Your task to perform on an android device: Go to location settings Image 0: 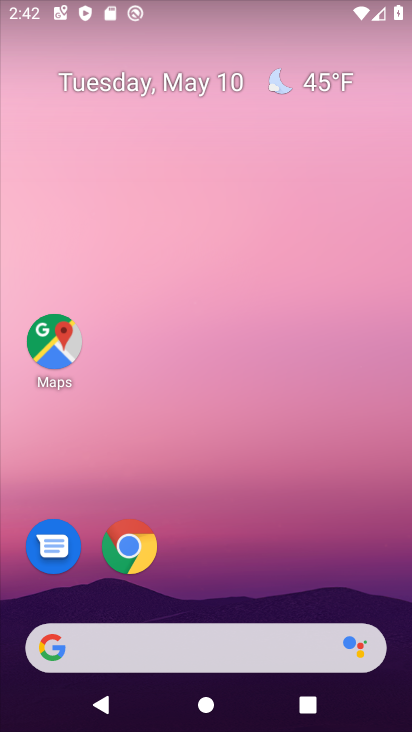
Step 0: drag from (265, 540) to (213, 88)
Your task to perform on an android device: Go to location settings Image 1: 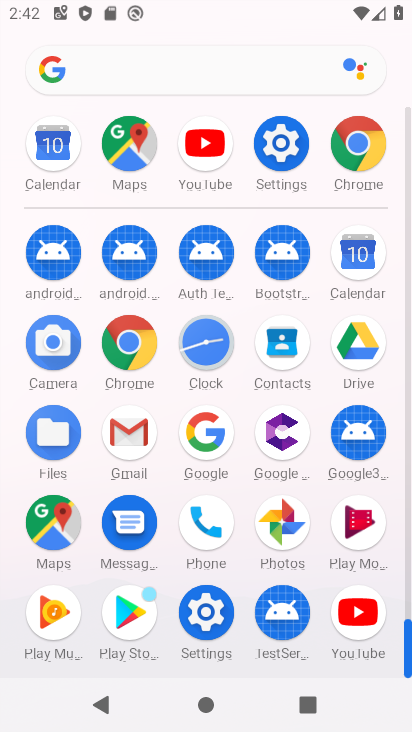
Step 1: drag from (9, 580) to (18, 187)
Your task to perform on an android device: Go to location settings Image 2: 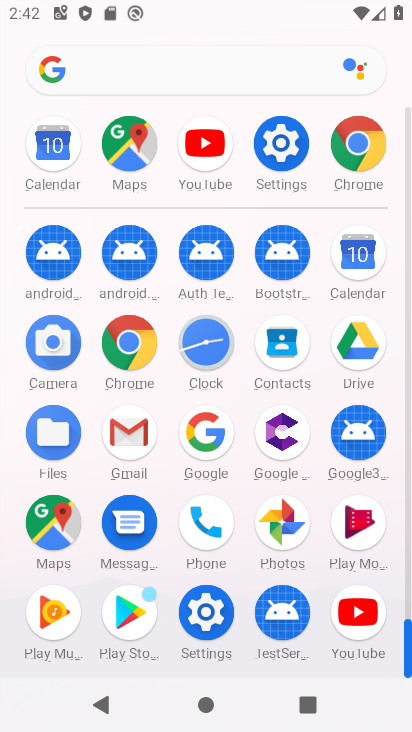
Step 2: click (204, 606)
Your task to perform on an android device: Go to location settings Image 3: 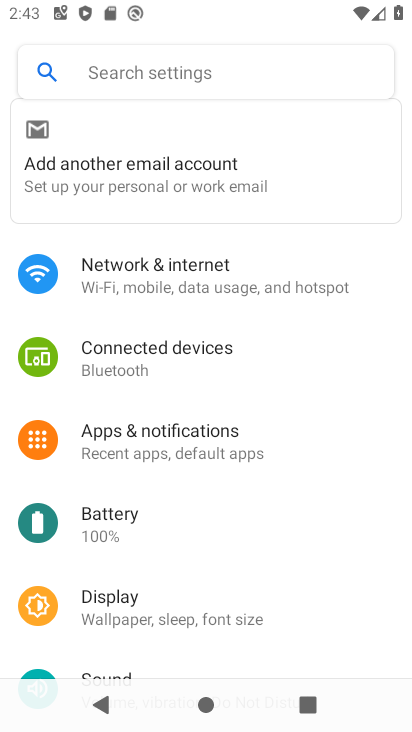
Step 3: drag from (267, 495) to (302, 213)
Your task to perform on an android device: Go to location settings Image 4: 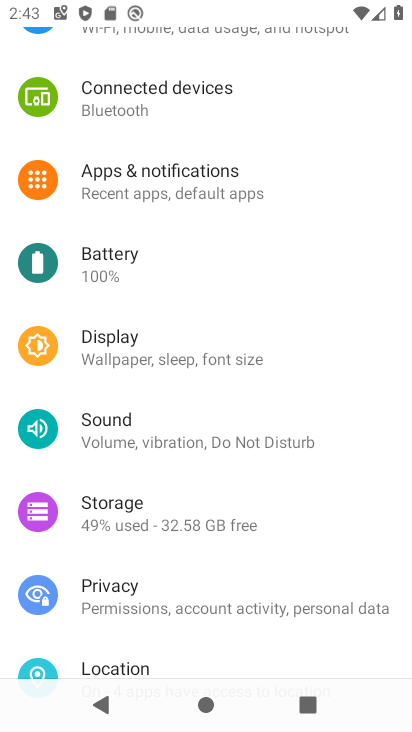
Step 4: drag from (295, 232) to (302, 404)
Your task to perform on an android device: Go to location settings Image 5: 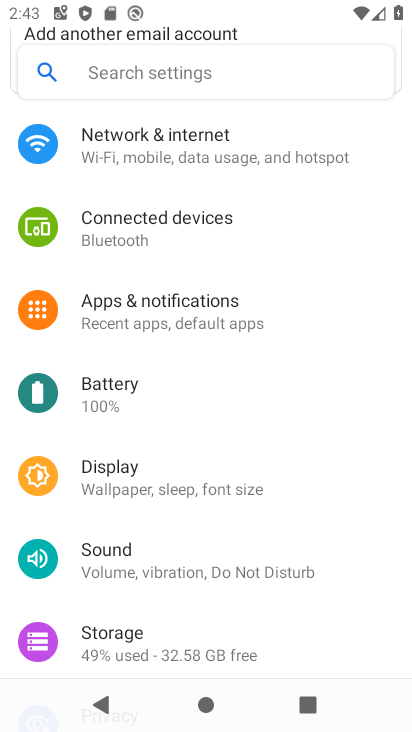
Step 5: drag from (282, 563) to (280, 186)
Your task to perform on an android device: Go to location settings Image 6: 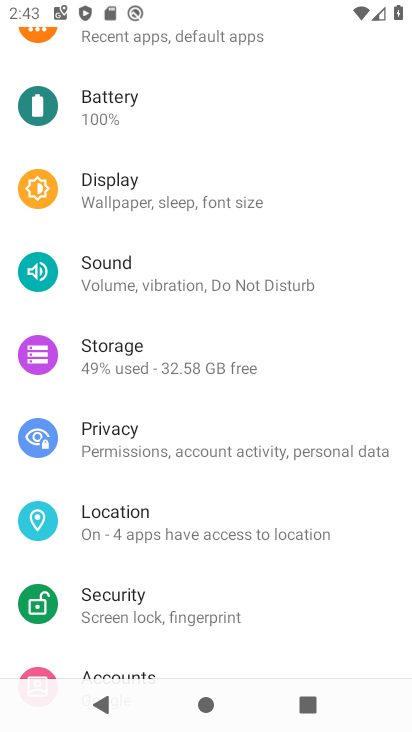
Step 6: click (133, 521)
Your task to perform on an android device: Go to location settings Image 7: 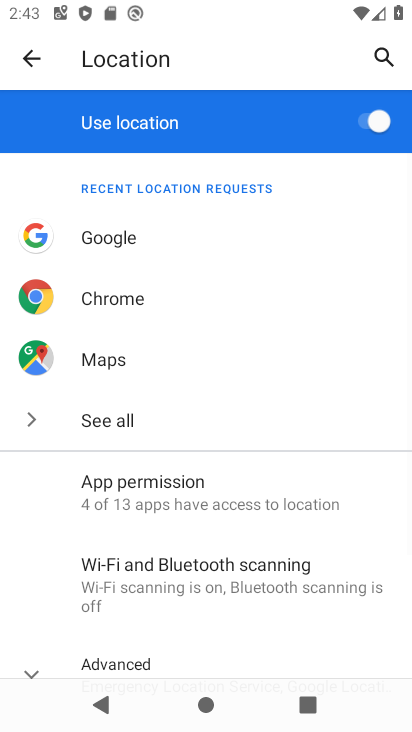
Step 7: drag from (159, 601) to (254, 209)
Your task to perform on an android device: Go to location settings Image 8: 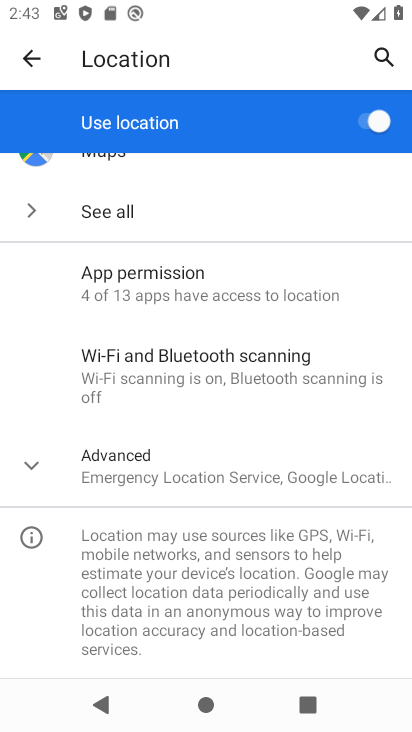
Step 8: click (20, 464)
Your task to perform on an android device: Go to location settings Image 9: 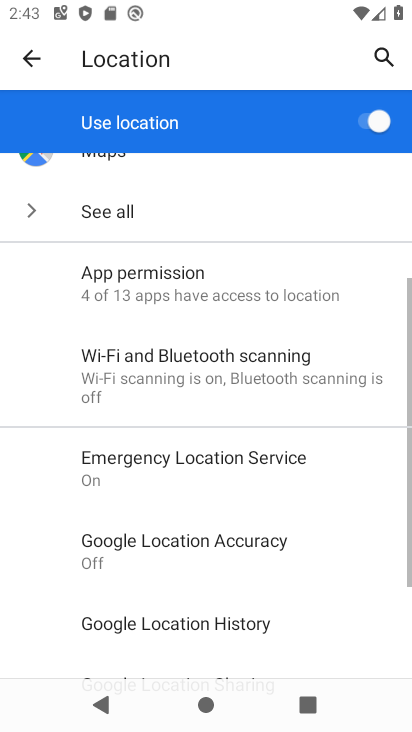
Step 9: task complete